Your task to perform on an android device: find which apps use the phone's location Image 0: 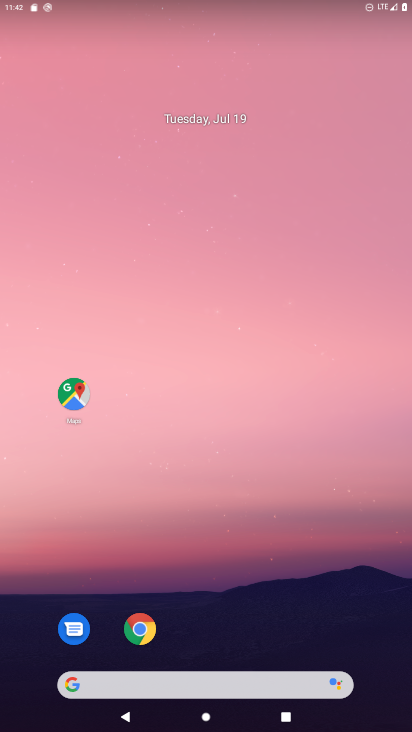
Step 0: drag from (203, 585) to (240, 154)
Your task to perform on an android device: find which apps use the phone's location Image 1: 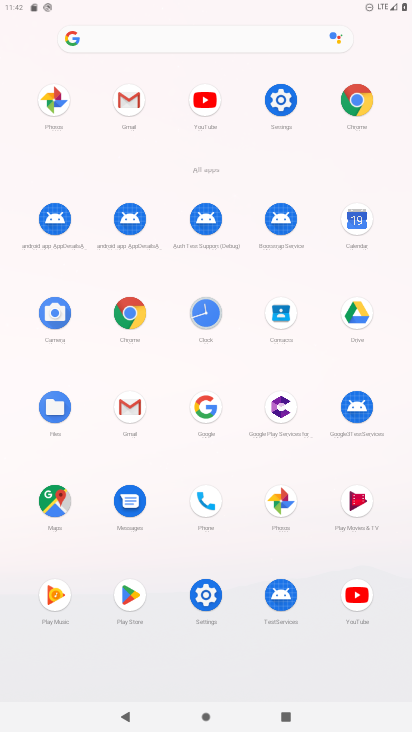
Step 1: click (209, 591)
Your task to perform on an android device: find which apps use the phone's location Image 2: 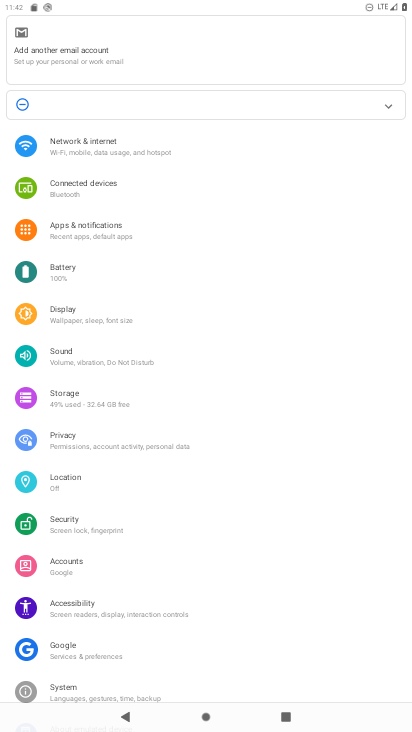
Step 2: click (59, 469)
Your task to perform on an android device: find which apps use the phone's location Image 3: 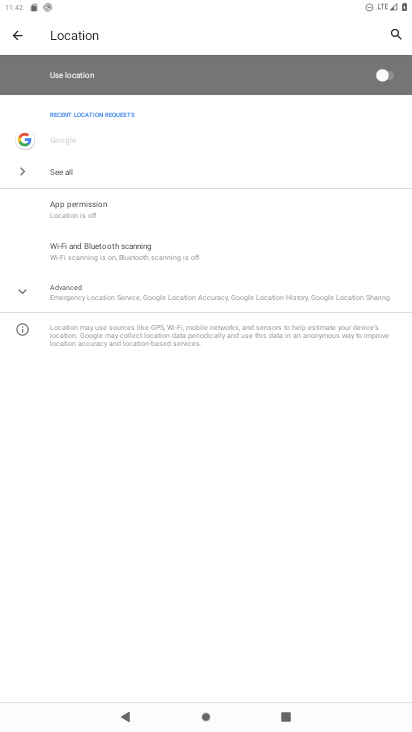
Step 3: click (82, 215)
Your task to perform on an android device: find which apps use the phone's location Image 4: 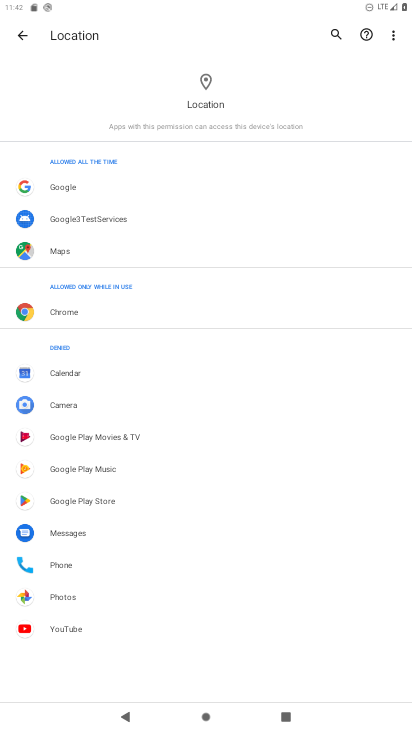
Step 4: task complete